Your task to perform on an android device: Search for usb-c to usb-a on walmart, select the first entry, add it to the cart, then select checkout. Image 0: 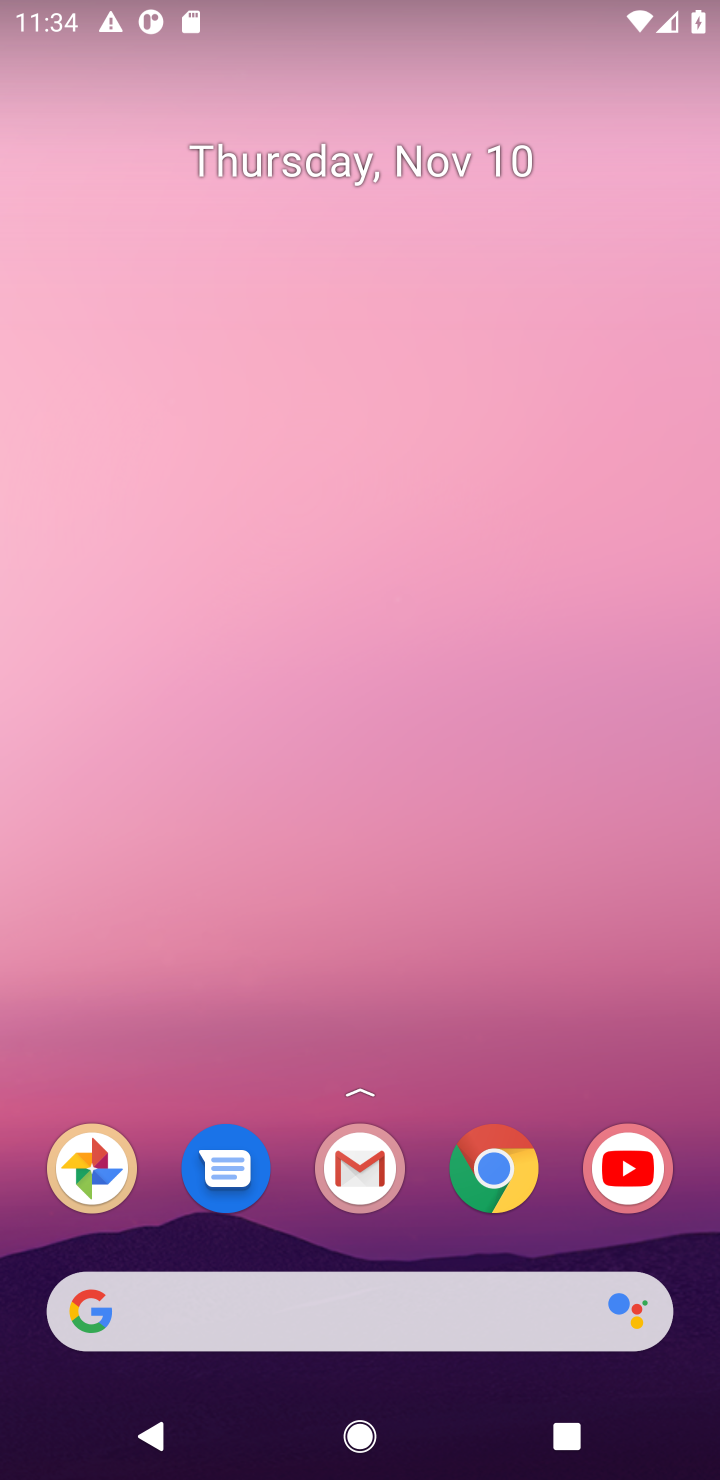
Step 0: click (499, 1171)
Your task to perform on an android device: Search for usb-c to usb-a on walmart, select the first entry, add it to the cart, then select checkout. Image 1: 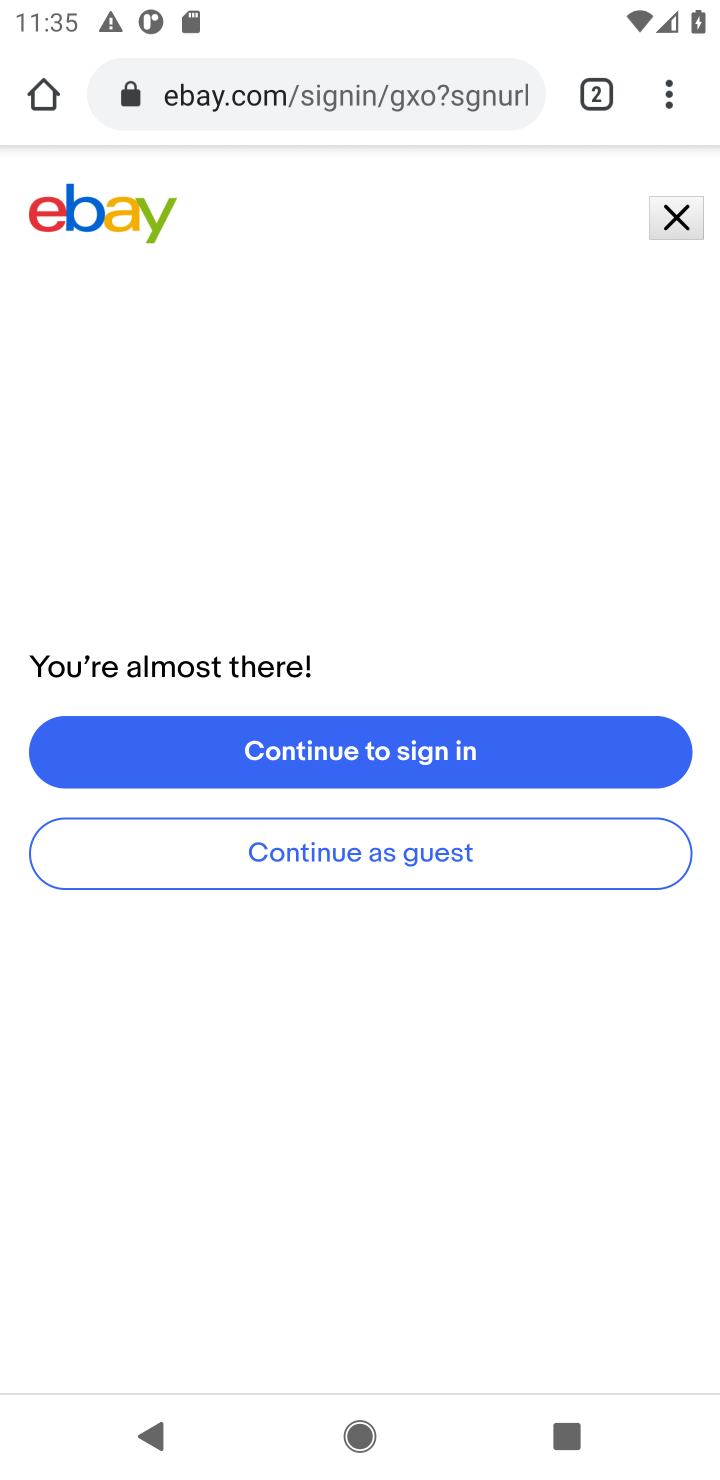
Step 1: click (261, 101)
Your task to perform on an android device: Search for usb-c to usb-a on walmart, select the first entry, add it to the cart, then select checkout. Image 2: 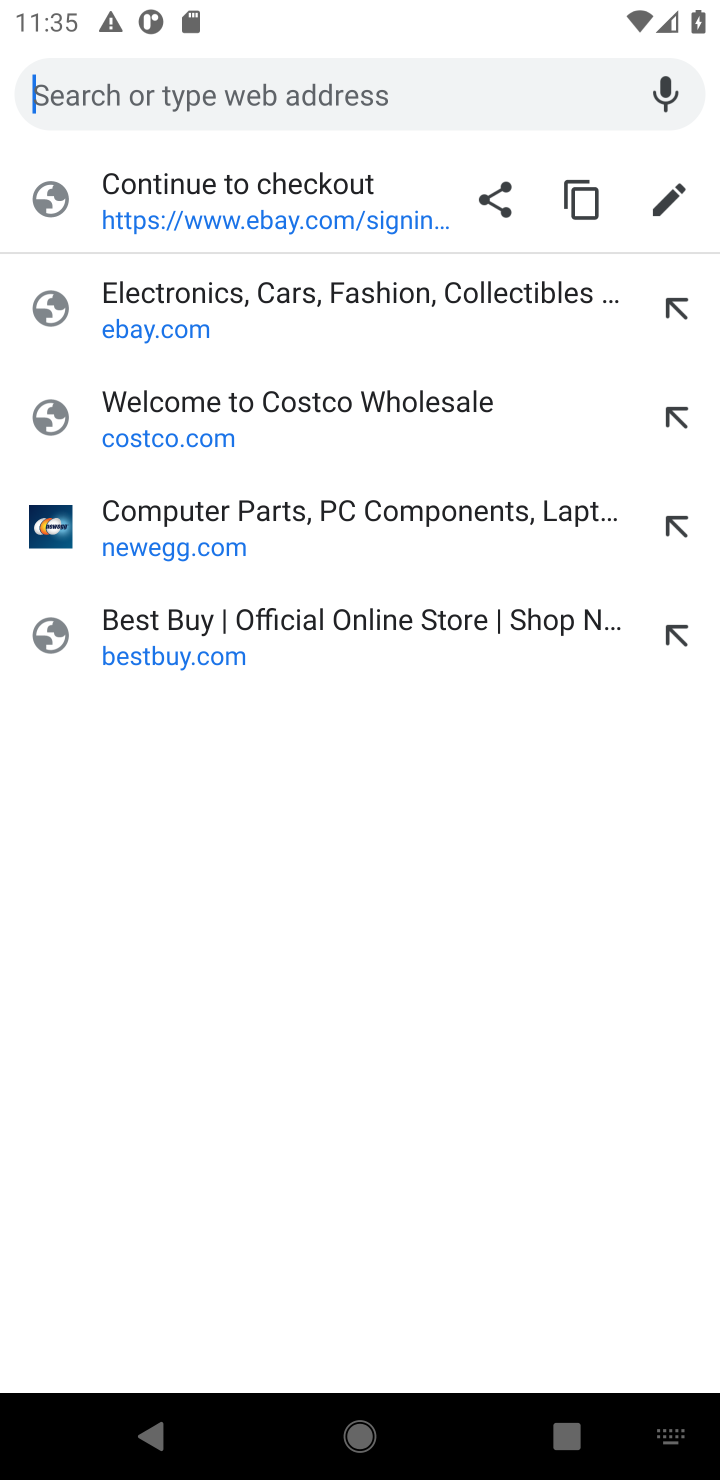
Step 2: type "walmart.com"
Your task to perform on an android device: Search for usb-c to usb-a on walmart, select the first entry, add it to the cart, then select checkout. Image 3: 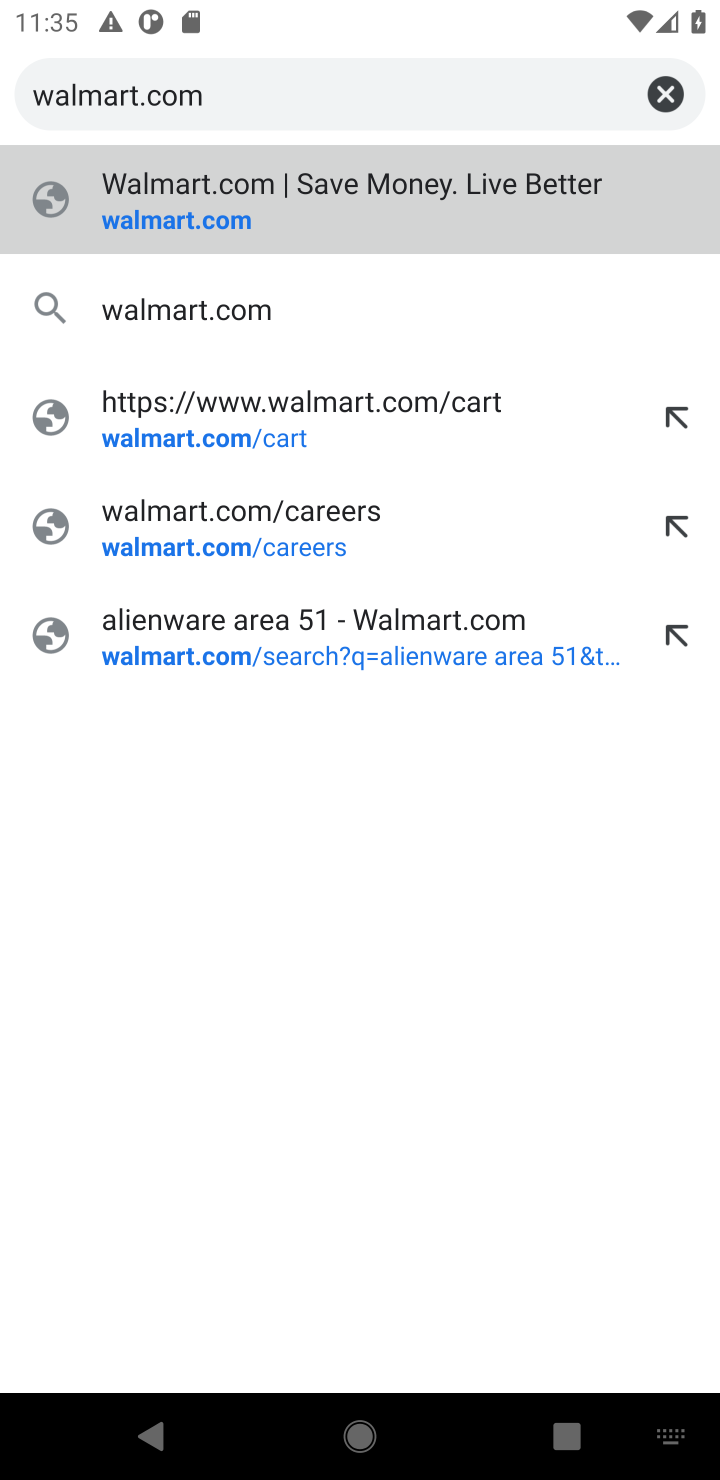
Step 3: click (173, 229)
Your task to perform on an android device: Search for usb-c to usb-a on walmart, select the first entry, add it to the cart, then select checkout. Image 4: 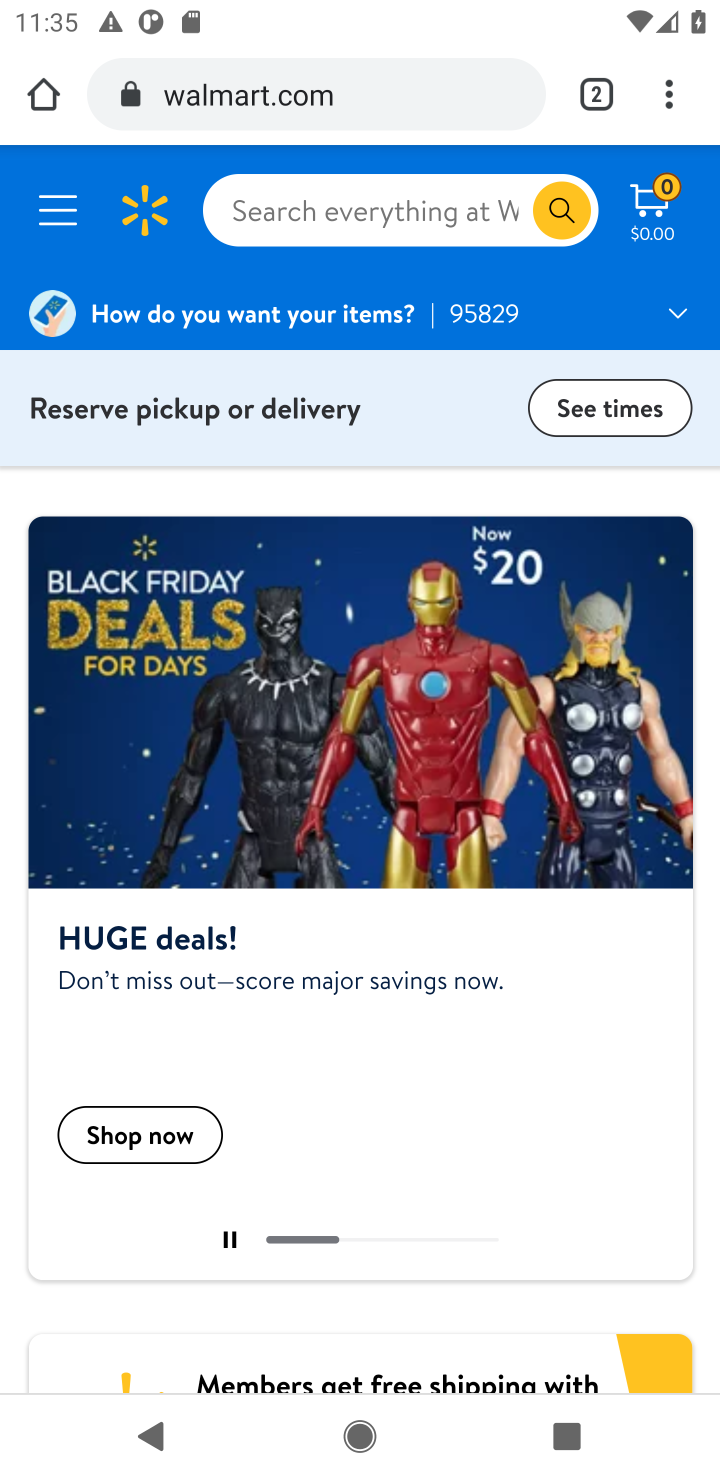
Step 4: click (314, 201)
Your task to perform on an android device: Search for usb-c to usb-a on walmart, select the first entry, add it to the cart, then select checkout. Image 5: 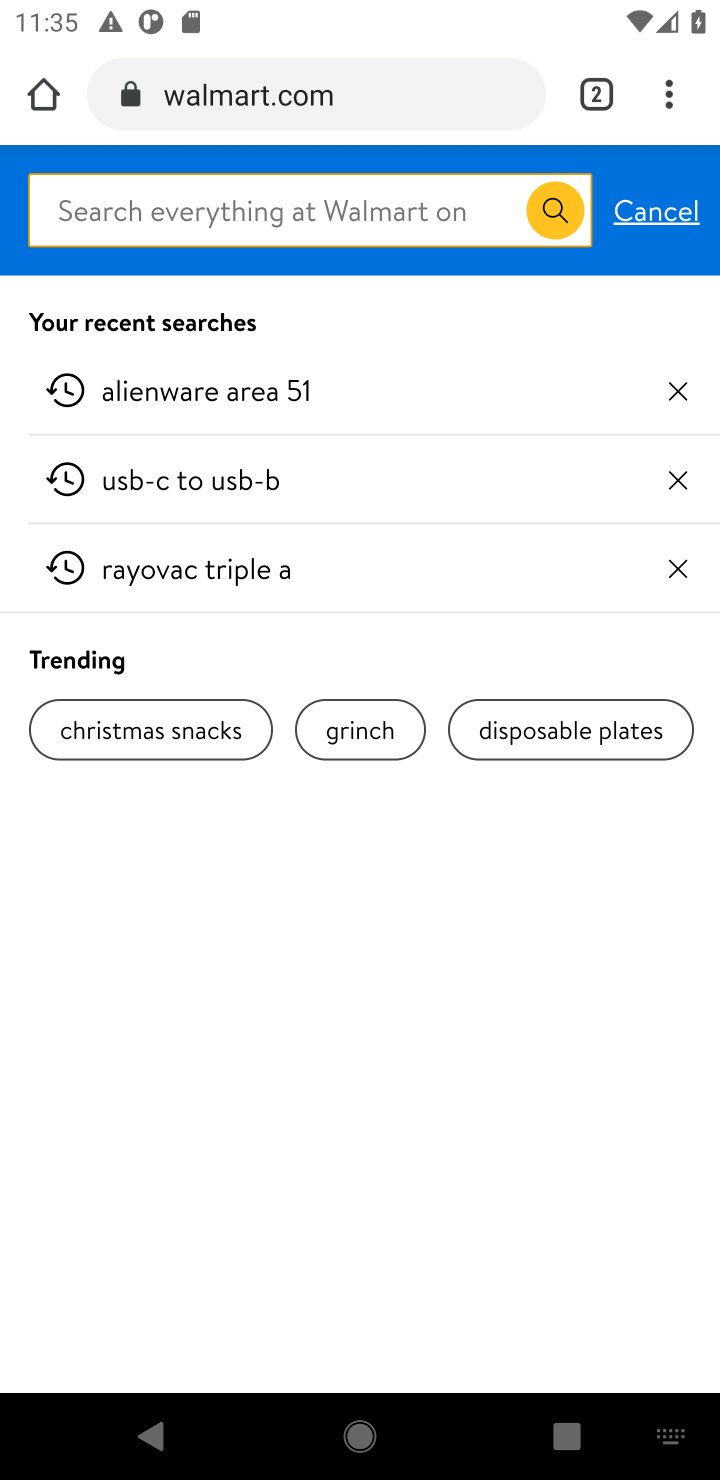
Step 5: type "usb-c to usb-a"
Your task to perform on an android device: Search for usb-c to usb-a on walmart, select the first entry, add it to the cart, then select checkout. Image 6: 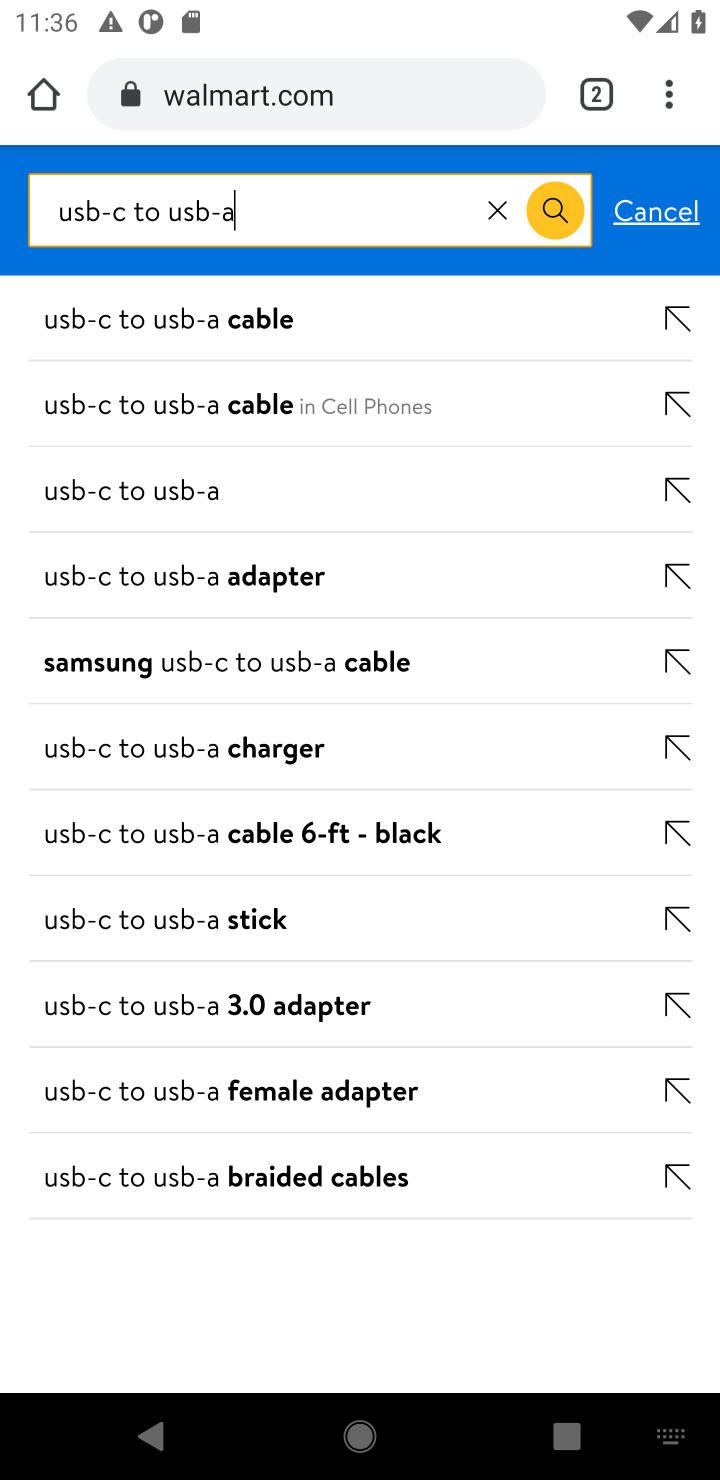
Step 6: click (153, 483)
Your task to perform on an android device: Search for usb-c to usb-a on walmart, select the first entry, add it to the cart, then select checkout. Image 7: 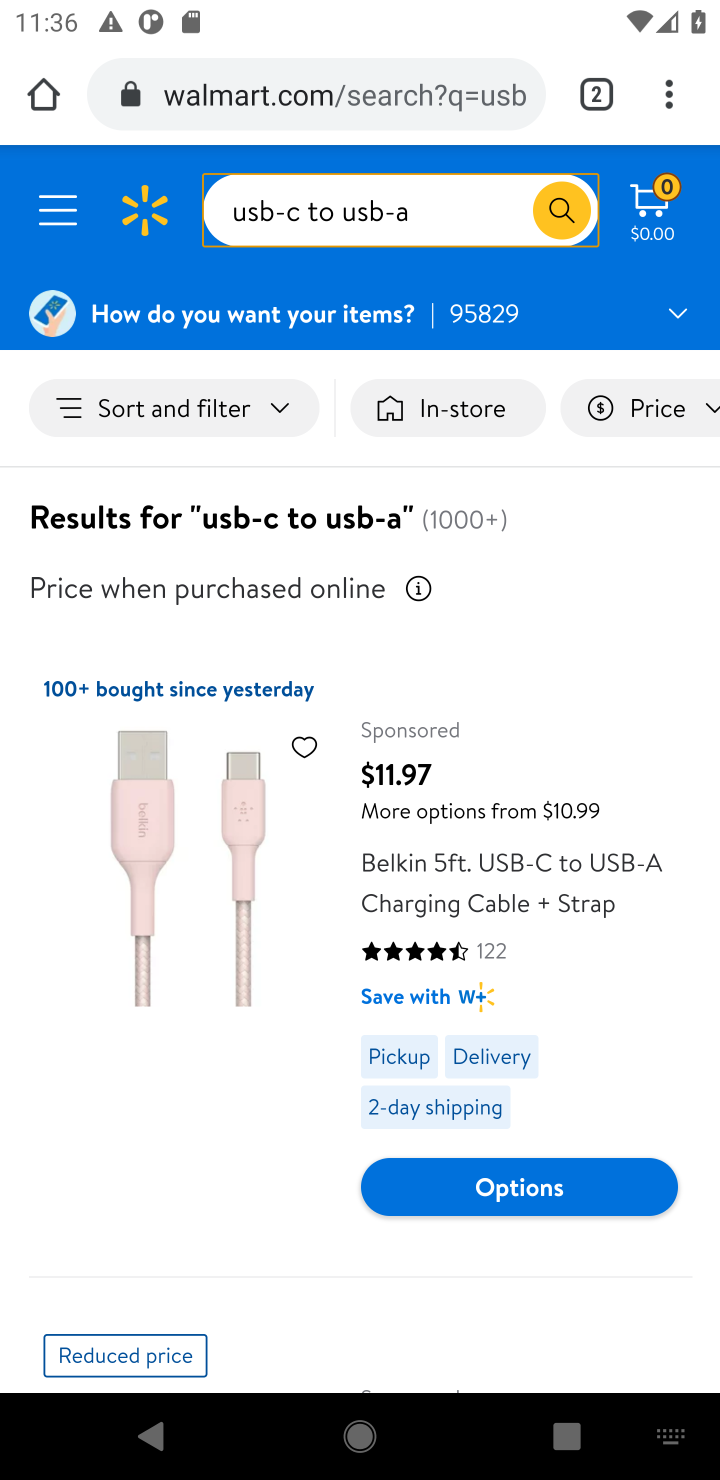
Step 7: click (224, 955)
Your task to perform on an android device: Search for usb-c to usb-a on walmart, select the first entry, add it to the cart, then select checkout. Image 8: 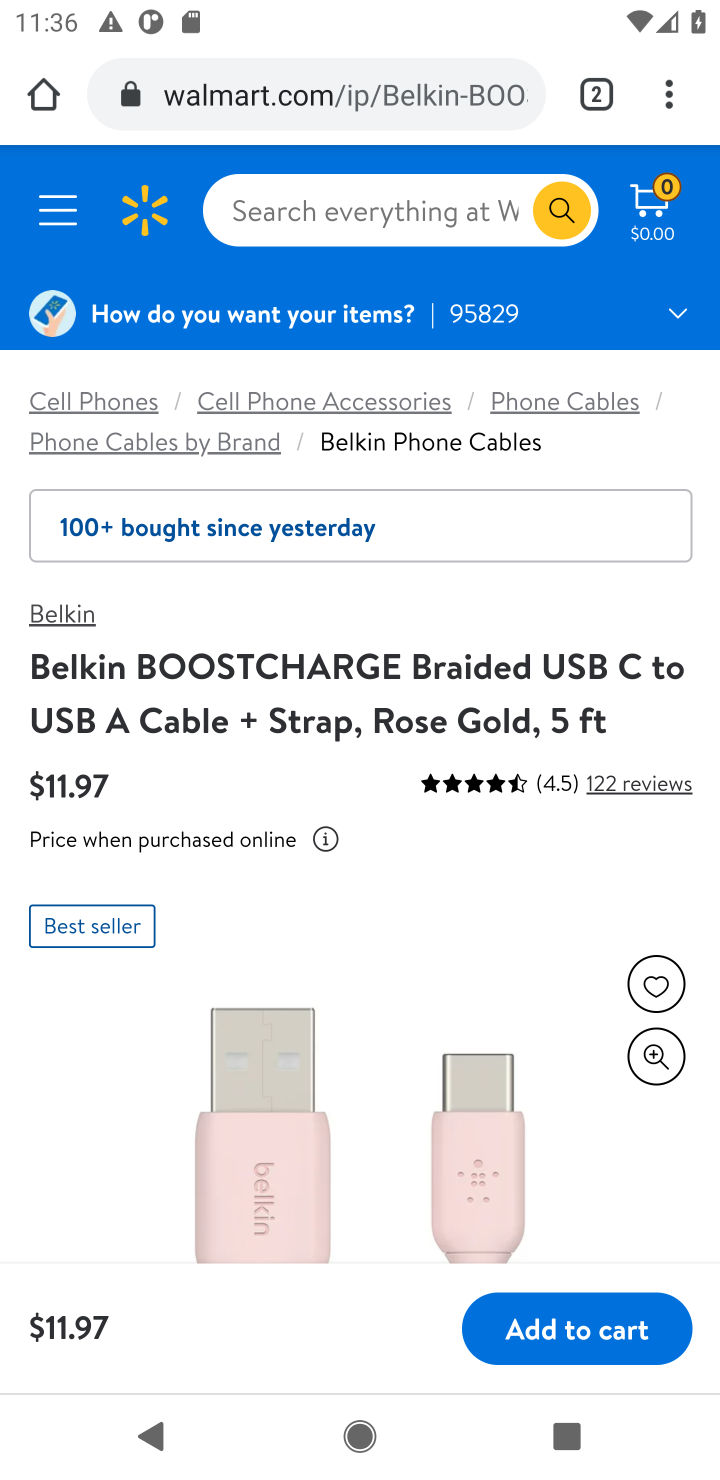
Step 8: click (588, 1333)
Your task to perform on an android device: Search for usb-c to usb-a on walmart, select the first entry, add it to the cart, then select checkout. Image 9: 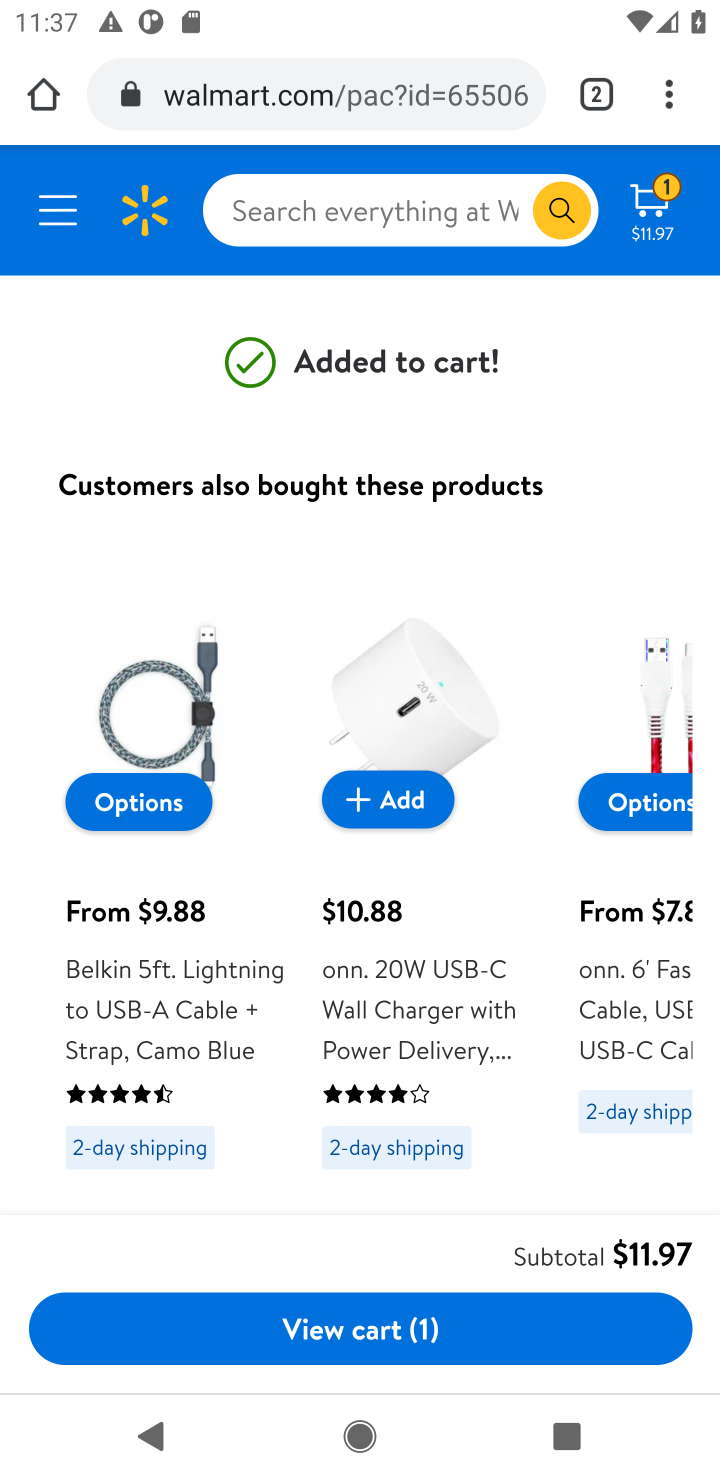
Step 9: drag from (396, 1171) to (439, 811)
Your task to perform on an android device: Search for usb-c to usb-a on walmart, select the first entry, add it to the cart, then select checkout. Image 10: 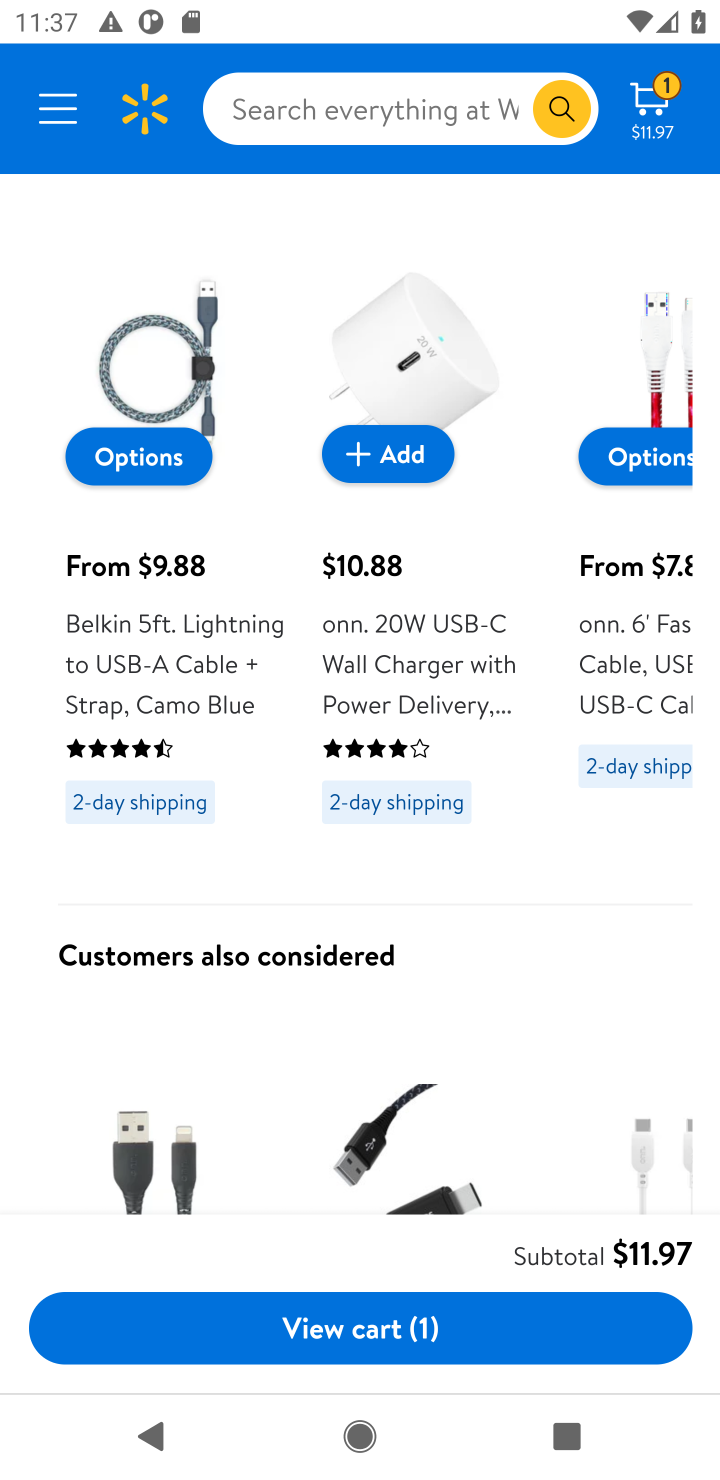
Step 10: click (654, 110)
Your task to perform on an android device: Search for usb-c to usb-a on walmart, select the first entry, add it to the cart, then select checkout. Image 11: 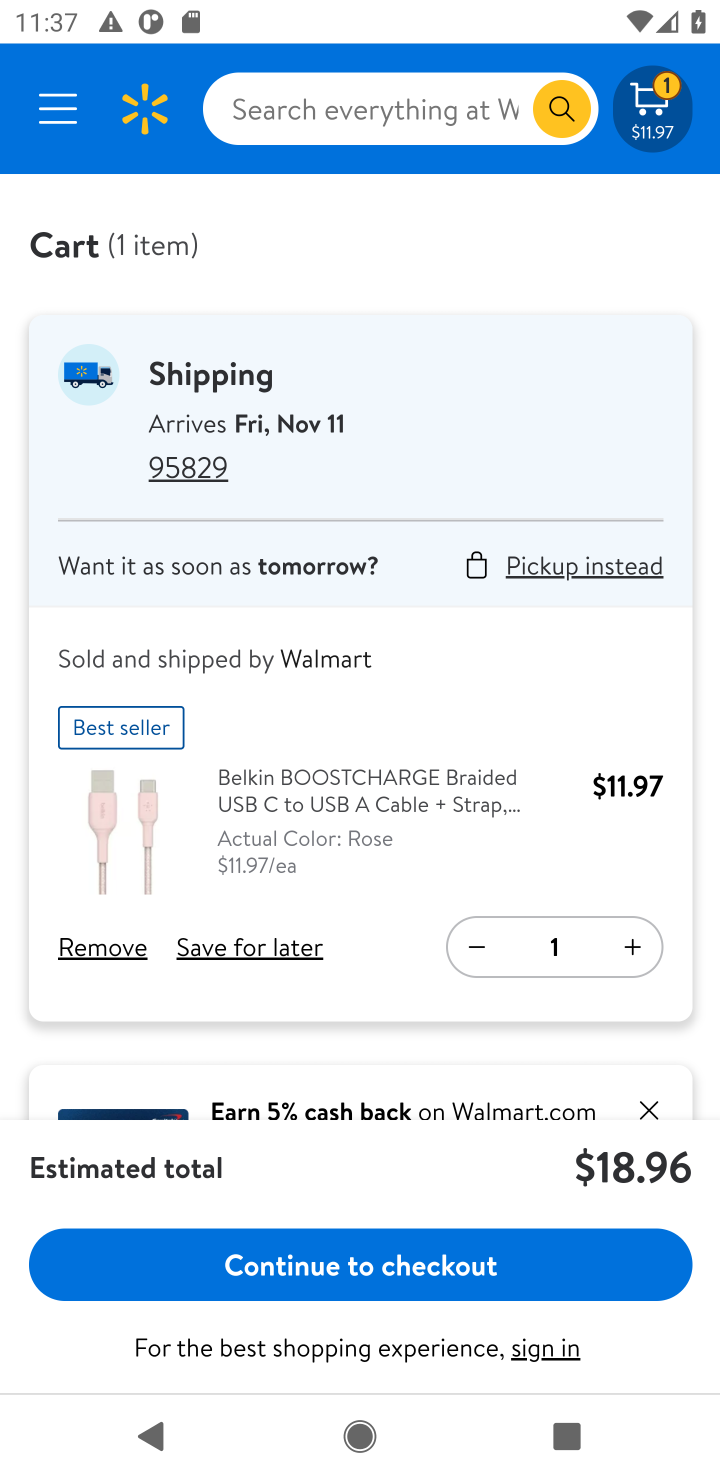
Step 11: click (420, 1290)
Your task to perform on an android device: Search for usb-c to usb-a on walmart, select the first entry, add it to the cart, then select checkout. Image 12: 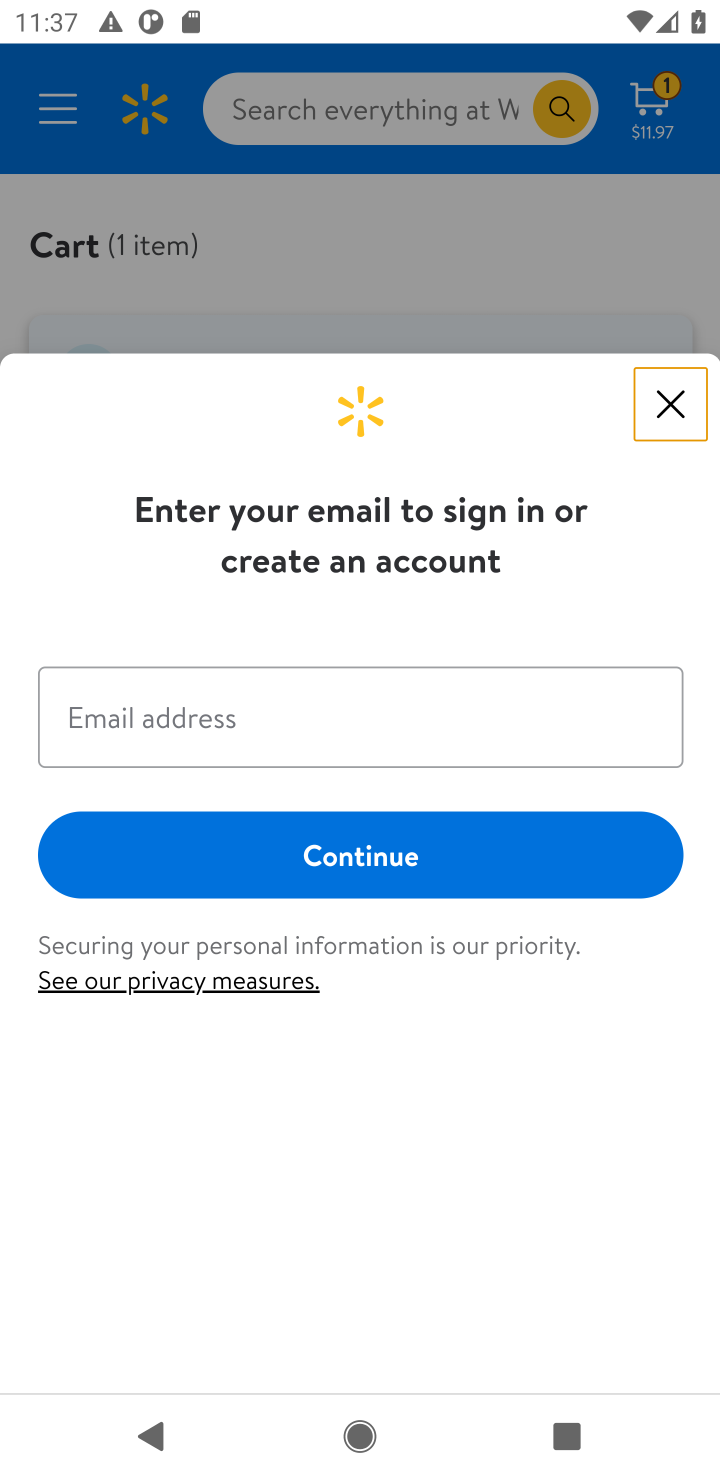
Step 12: task complete